Your task to perform on an android device: toggle translation in the chrome app Image 0: 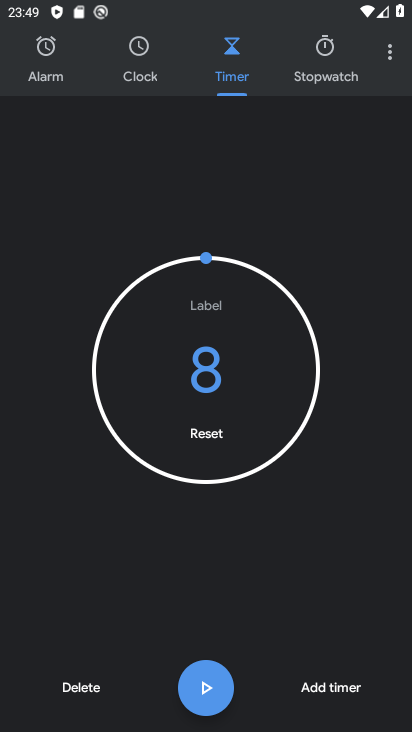
Step 0: press home button
Your task to perform on an android device: toggle translation in the chrome app Image 1: 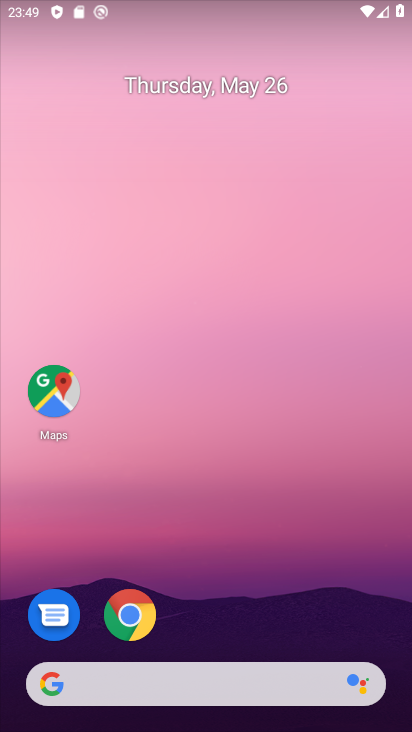
Step 1: click (136, 625)
Your task to perform on an android device: toggle translation in the chrome app Image 2: 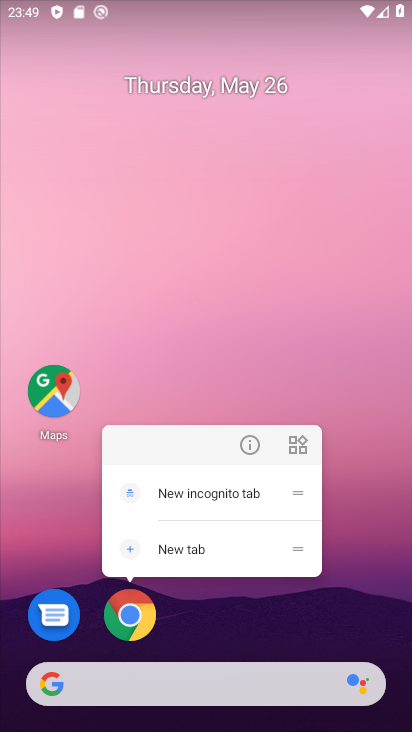
Step 2: click (147, 604)
Your task to perform on an android device: toggle translation in the chrome app Image 3: 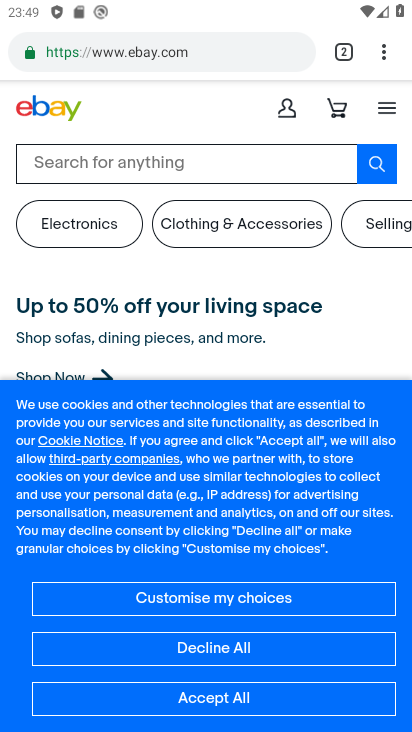
Step 3: drag from (391, 41) to (215, 636)
Your task to perform on an android device: toggle translation in the chrome app Image 4: 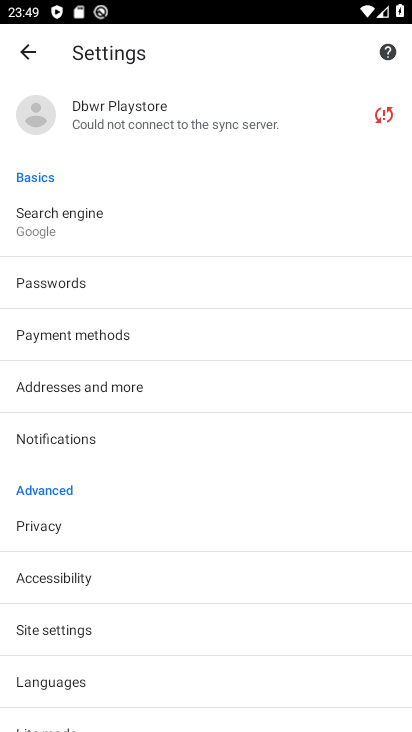
Step 4: click (81, 676)
Your task to perform on an android device: toggle translation in the chrome app Image 5: 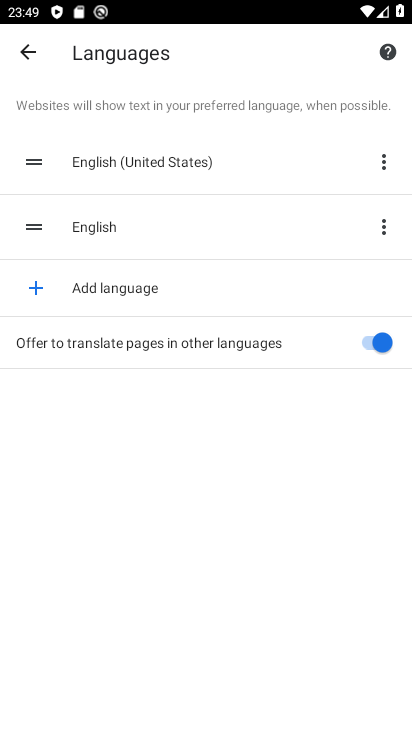
Step 5: click (246, 338)
Your task to perform on an android device: toggle translation in the chrome app Image 6: 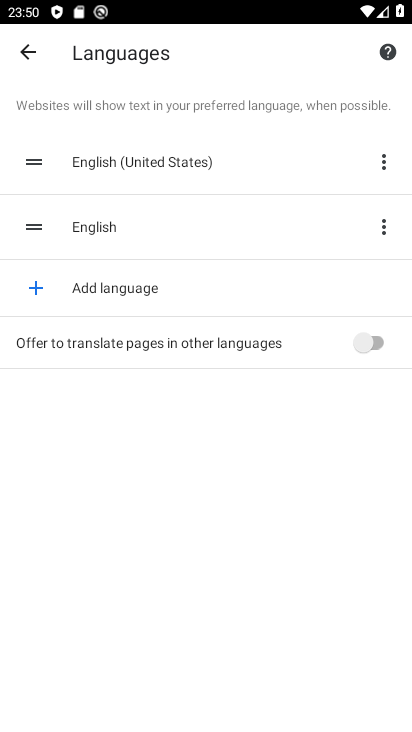
Step 6: task complete